Your task to perform on an android device: set the stopwatch Image 0: 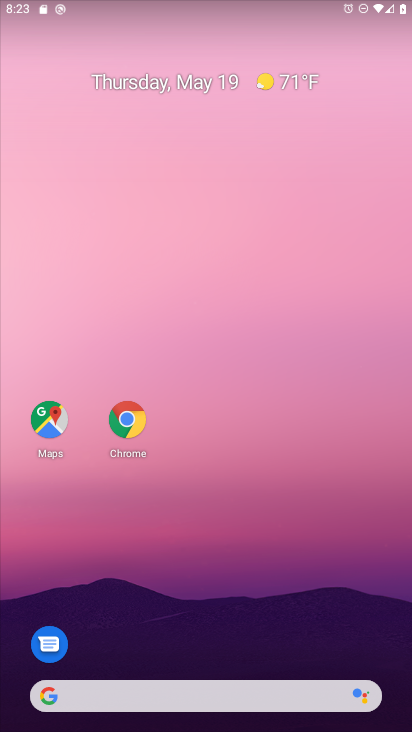
Step 0: drag from (252, 677) to (250, 324)
Your task to perform on an android device: set the stopwatch Image 1: 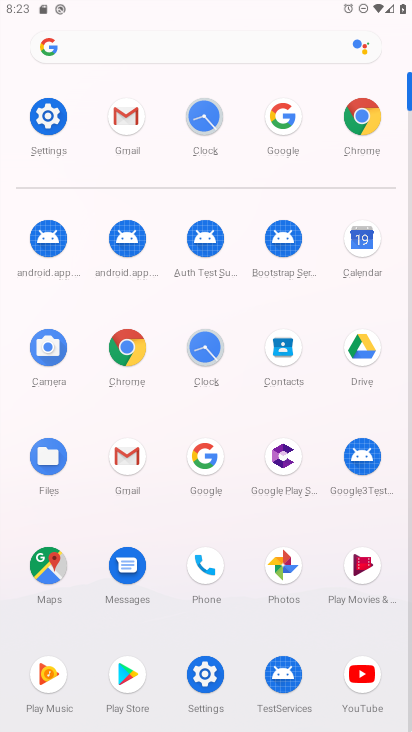
Step 1: click (208, 113)
Your task to perform on an android device: set the stopwatch Image 2: 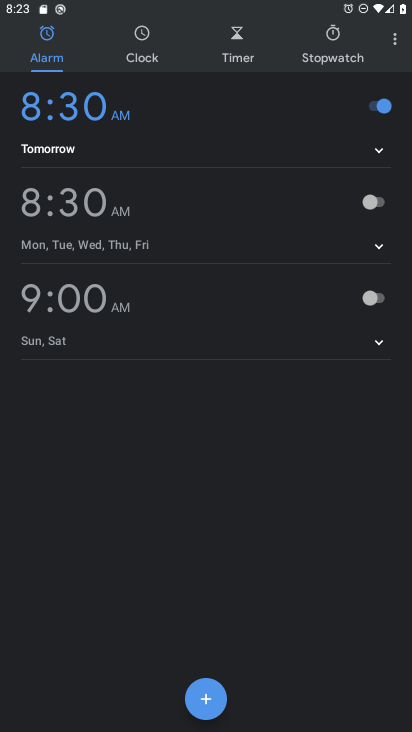
Step 2: click (321, 54)
Your task to perform on an android device: set the stopwatch Image 3: 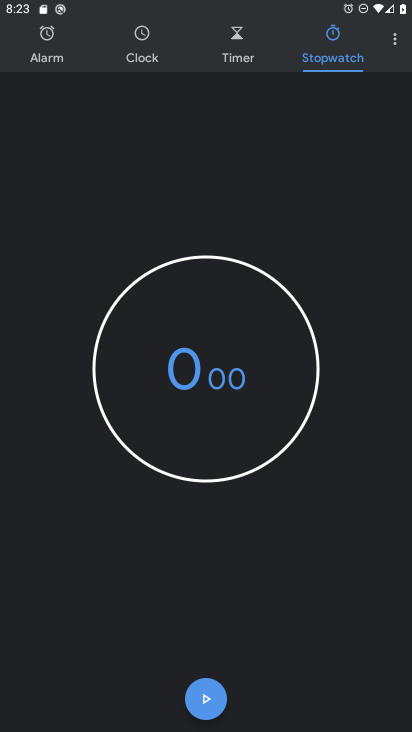
Step 3: click (211, 695)
Your task to perform on an android device: set the stopwatch Image 4: 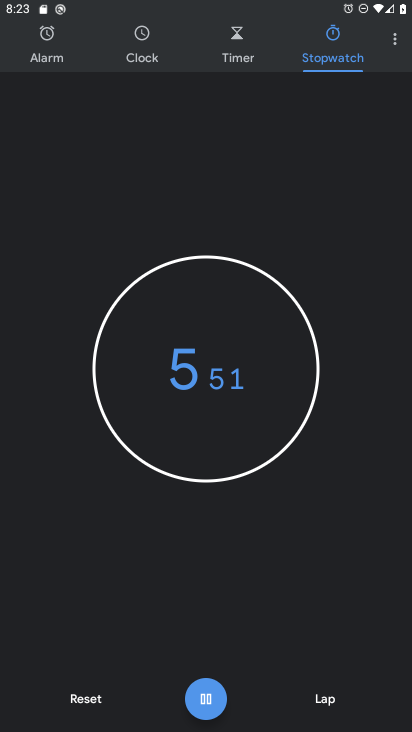
Step 4: click (205, 710)
Your task to perform on an android device: set the stopwatch Image 5: 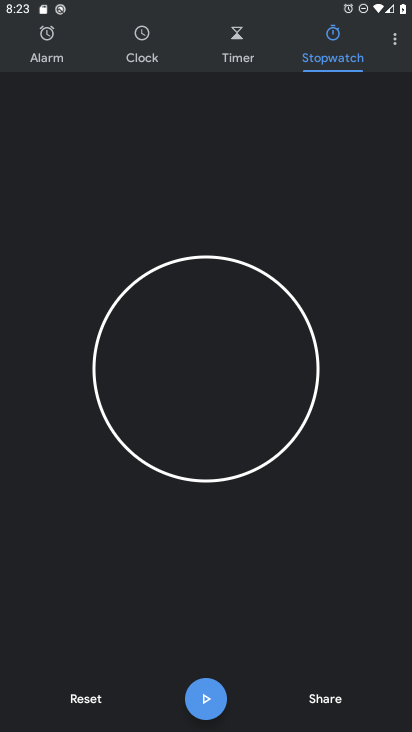
Step 5: task complete